Your task to perform on an android device: check data usage Image 0: 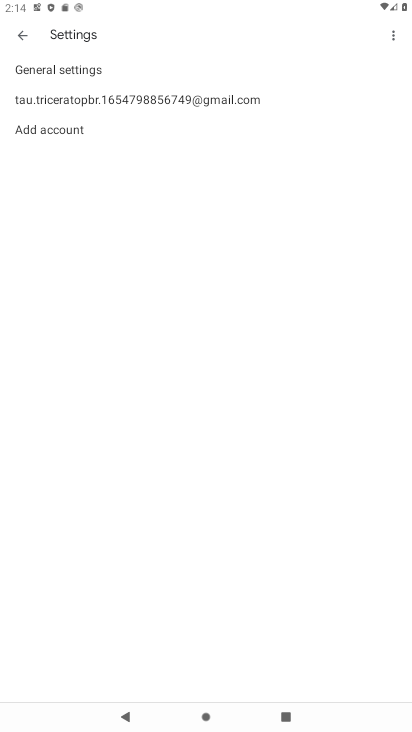
Step 0: press home button
Your task to perform on an android device: check data usage Image 1: 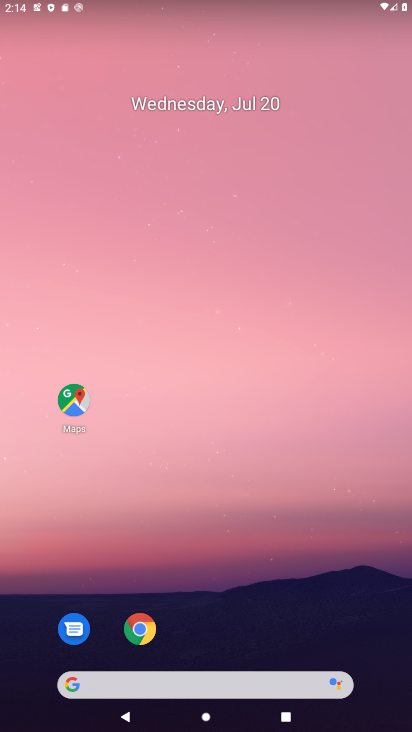
Step 1: drag from (191, 685) to (196, 63)
Your task to perform on an android device: check data usage Image 2: 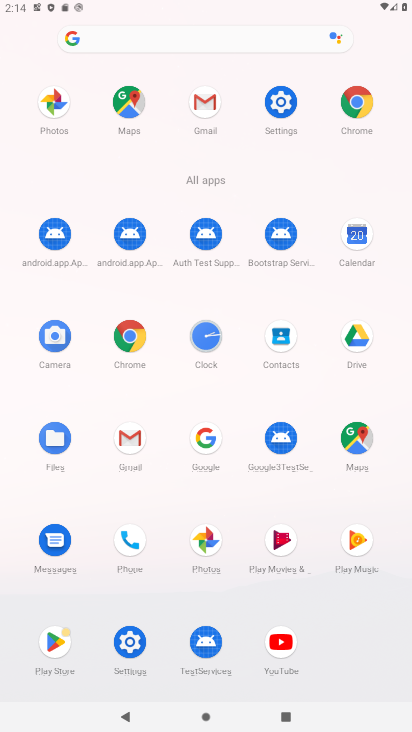
Step 2: click (136, 642)
Your task to perform on an android device: check data usage Image 3: 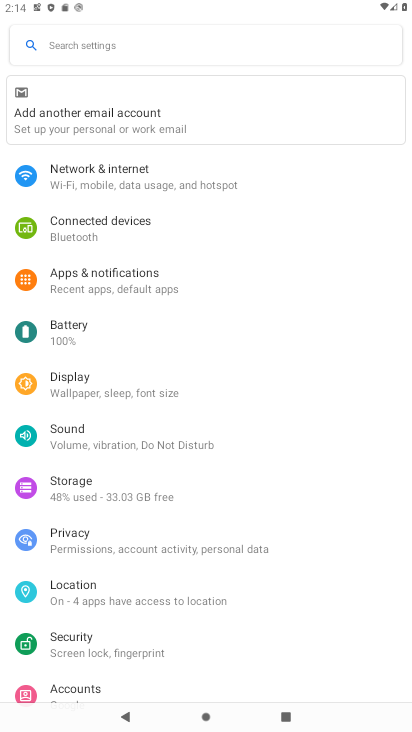
Step 3: click (84, 500)
Your task to perform on an android device: check data usage Image 4: 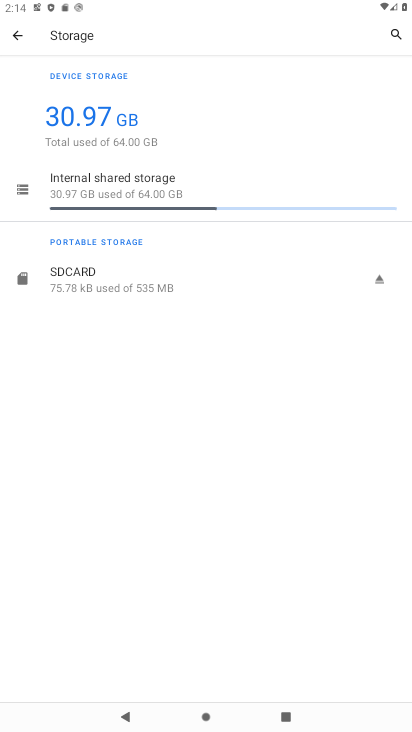
Step 4: task complete